Your task to perform on an android device: toggle airplane mode Image 0: 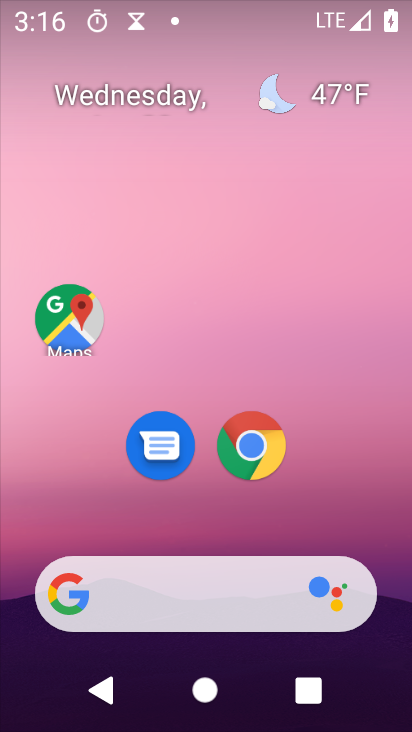
Step 0: drag from (358, 535) to (378, 6)
Your task to perform on an android device: toggle airplane mode Image 1: 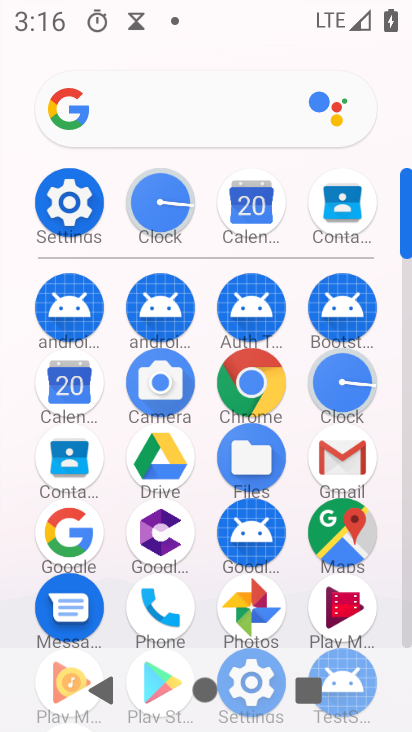
Step 1: click (64, 209)
Your task to perform on an android device: toggle airplane mode Image 2: 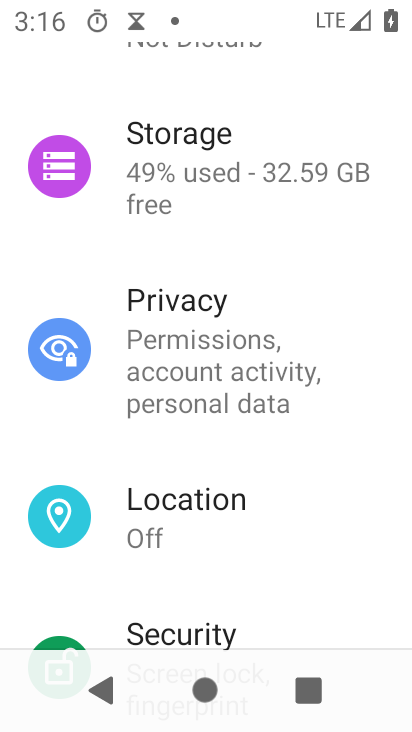
Step 2: drag from (328, 261) to (312, 602)
Your task to perform on an android device: toggle airplane mode Image 3: 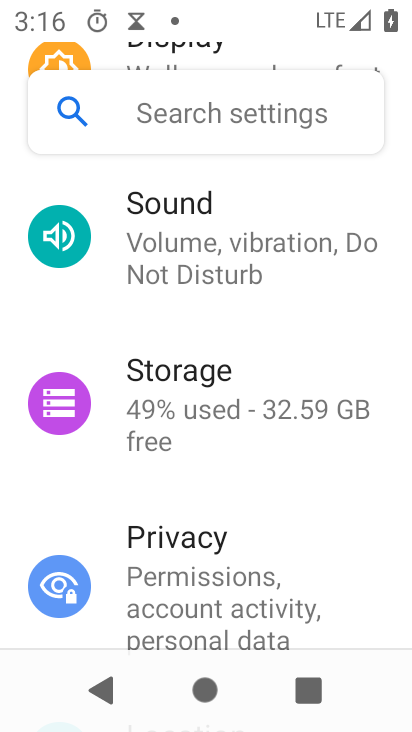
Step 3: drag from (320, 340) to (326, 616)
Your task to perform on an android device: toggle airplane mode Image 4: 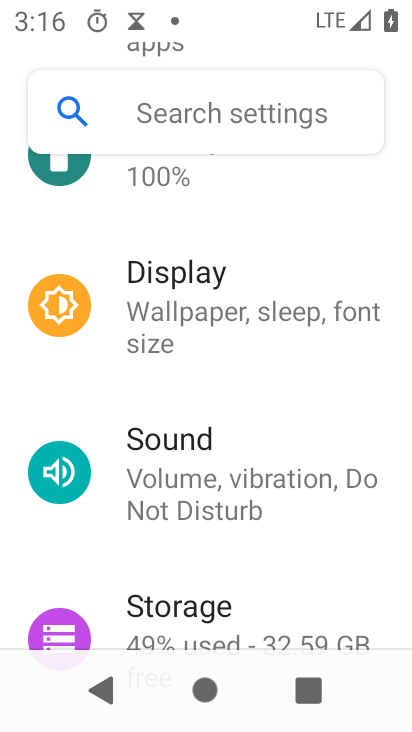
Step 4: drag from (309, 269) to (321, 573)
Your task to perform on an android device: toggle airplane mode Image 5: 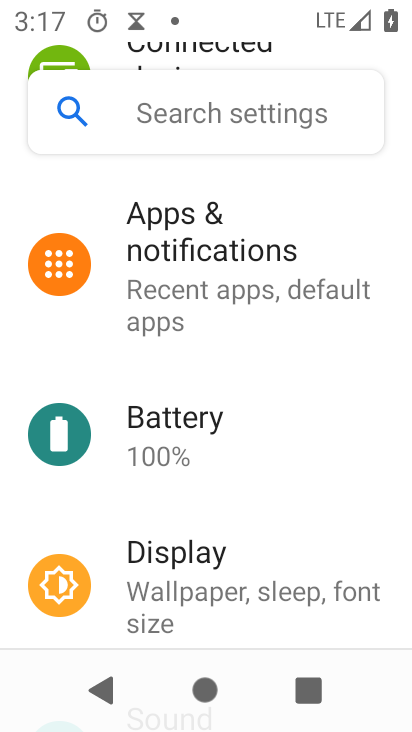
Step 5: drag from (330, 264) to (317, 598)
Your task to perform on an android device: toggle airplane mode Image 6: 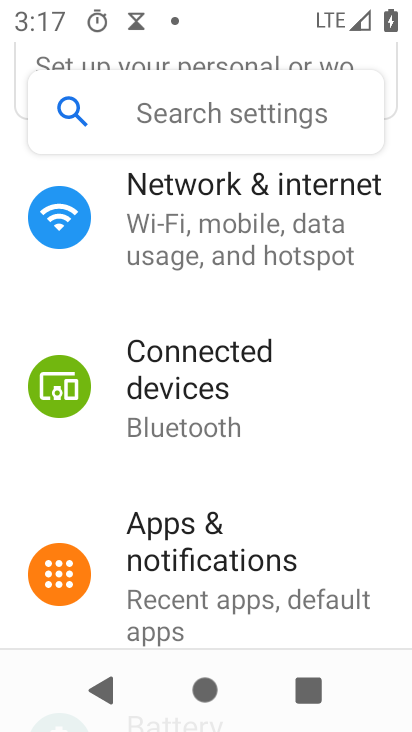
Step 6: click (221, 247)
Your task to perform on an android device: toggle airplane mode Image 7: 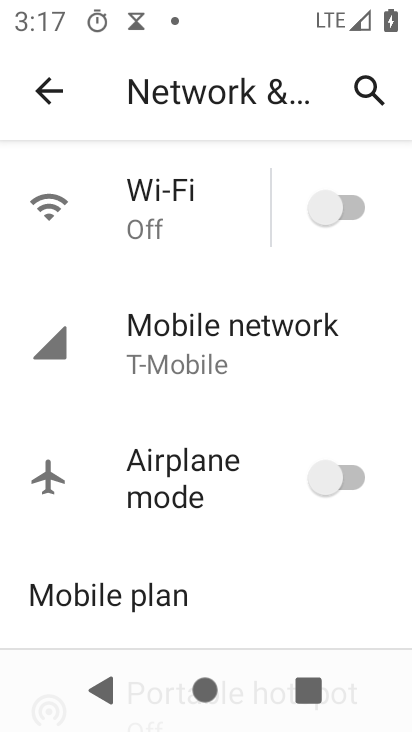
Step 7: click (344, 489)
Your task to perform on an android device: toggle airplane mode Image 8: 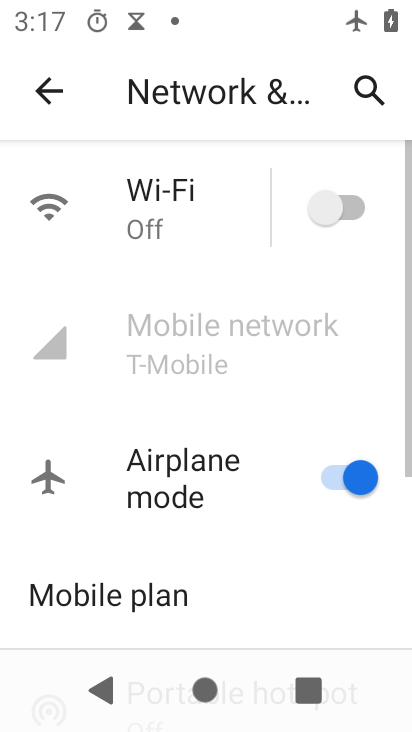
Step 8: task complete